Your task to perform on an android device: turn on priority inbox in the gmail app Image 0: 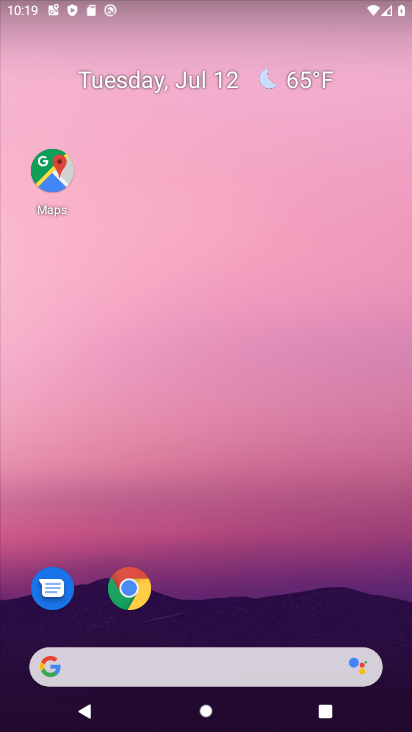
Step 0: drag from (20, 719) to (170, 35)
Your task to perform on an android device: turn on priority inbox in the gmail app Image 1: 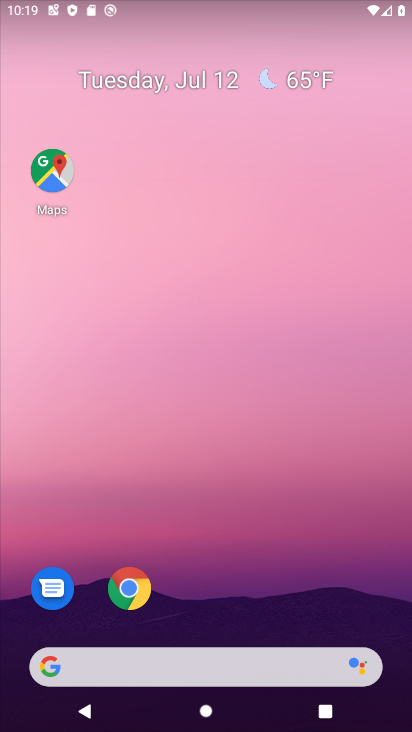
Step 1: drag from (47, 708) to (105, 72)
Your task to perform on an android device: turn on priority inbox in the gmail app Image 2: 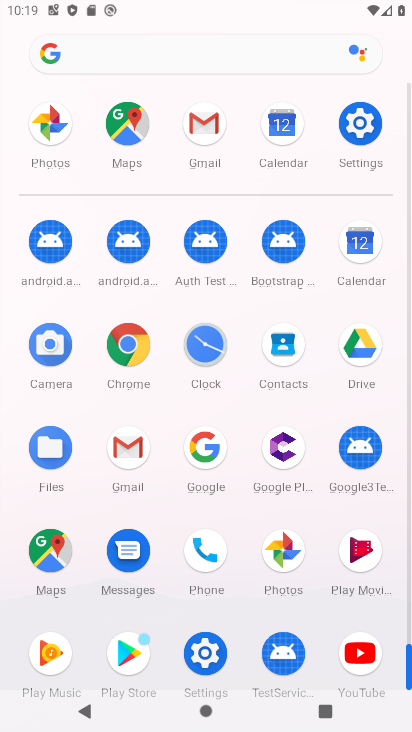
Step 2: click (131, 461)
Your task to perform on an android device: turn on priority inbox in the gmail app Image 3: 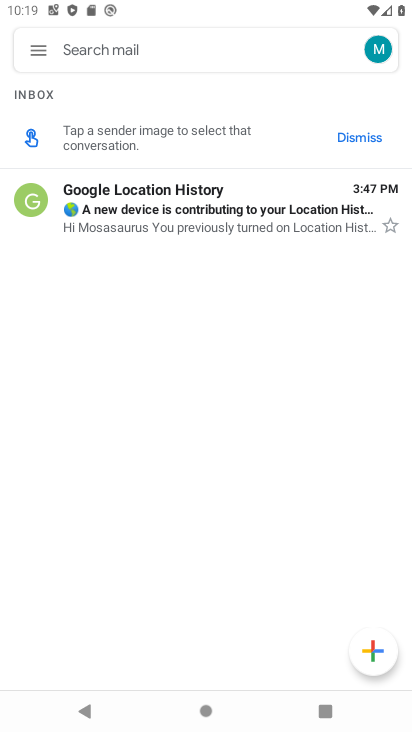
Step 3: click (32, 49)
Your task to perform on an android device: turn on priority inbox in the gmail app Image 4: 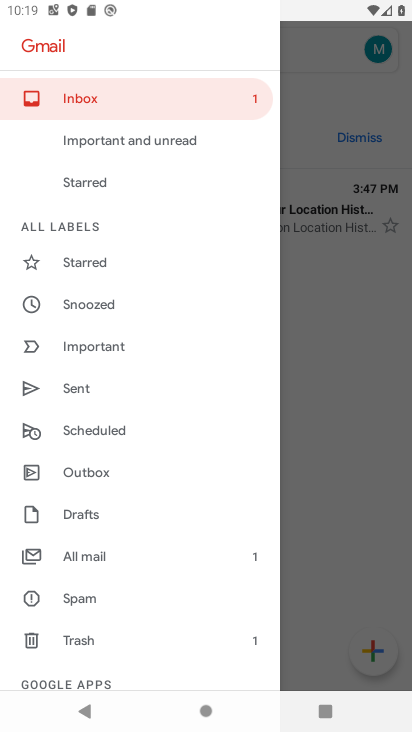
Step 4: drag from (157, 454) to (134, 3)
Your task to perform on an android device: turn on priority inbox in the gmail app Image 5: 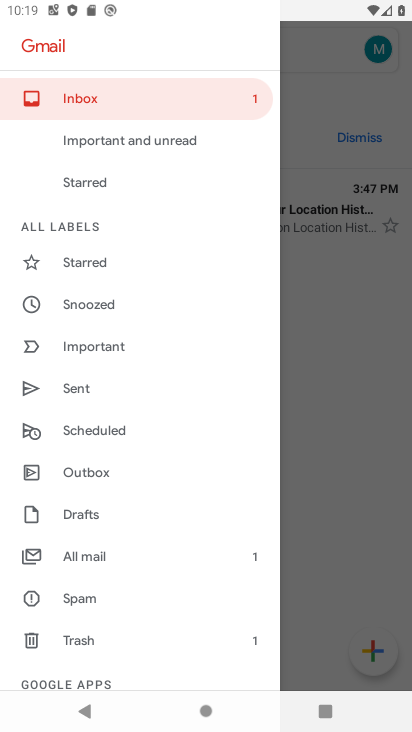
Step 5: drag from (147, 676) to (218, 246)
Your task to perform on an android device: turn on priority inbox in the gmail app Image 6: 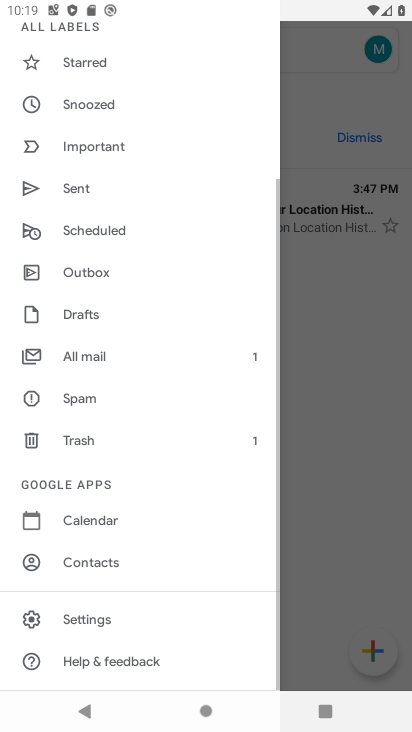
Step 6: click (86, 596)
Your task to perform on an android device: turn on priority inbox in the gmail app Image 7: 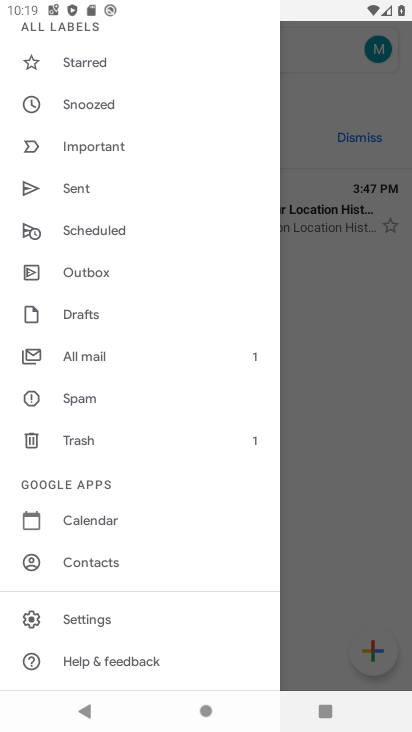
Step 7: click (89, 616)
Your task to perform on an android device: turn on priority inbox in the gmail app Image 8: 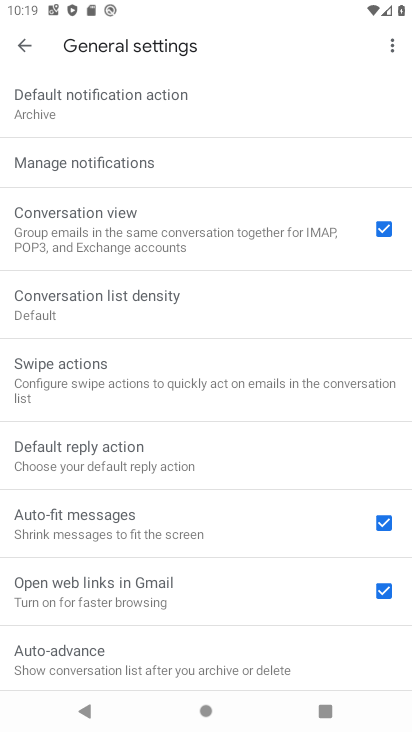
Step 8: drag from (157, 586) to (156, 80)
Your task to perform on an android device: turn on priority inbox in the gmail app Image 9: 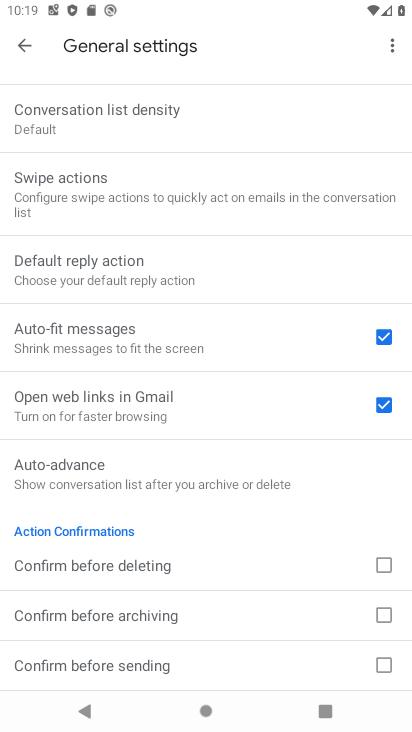
Step 9: click (17, 44)
Your task to perform on an android device: turn on priority inbox in the gmail app Image 10: 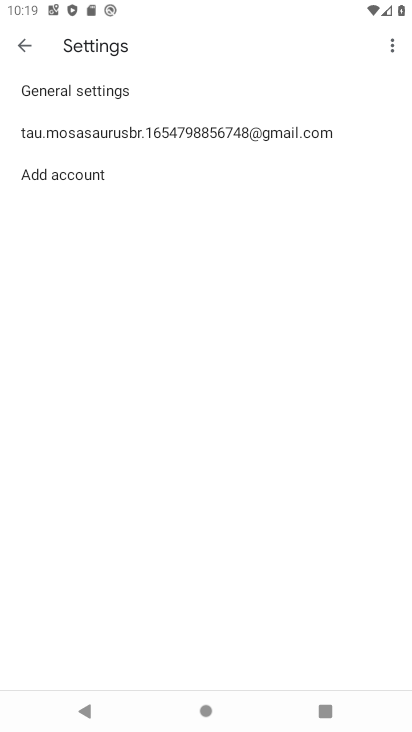
Step 10: click (48, 132)
Your task to perform on an android device: turn on priority inbox in the gmail app Image 11: 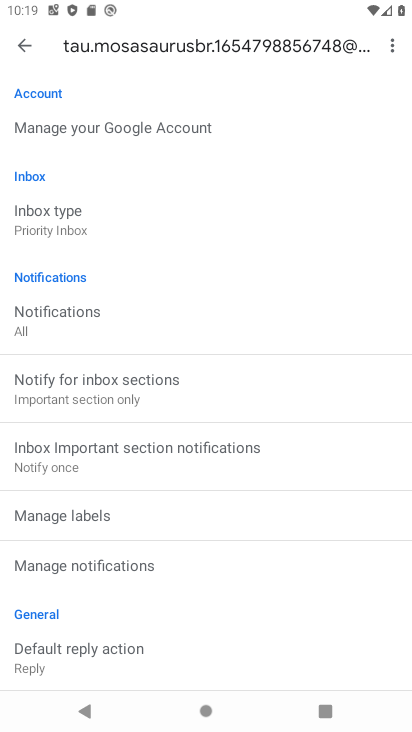
Step 11: drag from (224, 636) to (241, 190)
Your task to perform on an android device: turn on priority inbox in the gmail app Image 12: 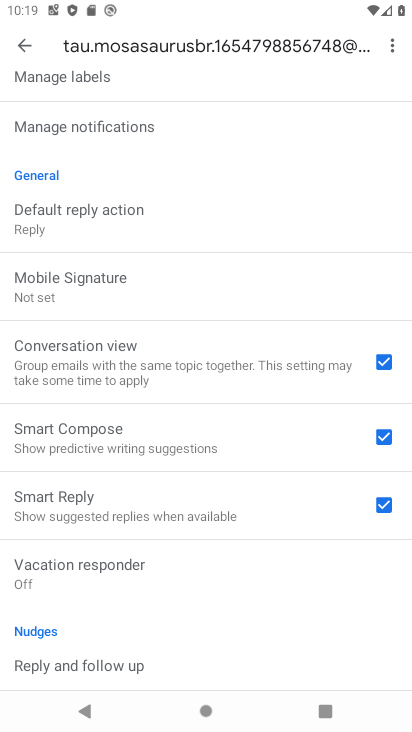
Step 12: drag from (218, 56) to (221, 677)
Your task to perform on an android device: turn on priority inbox in the gmail app Image 13: 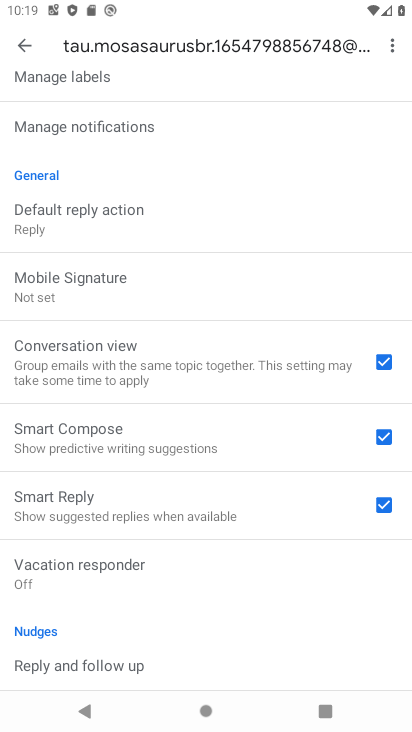
Step 13: click (228, 84)
Your task to perform on an android device: turn on priority inbox in the gmail app Image 14: 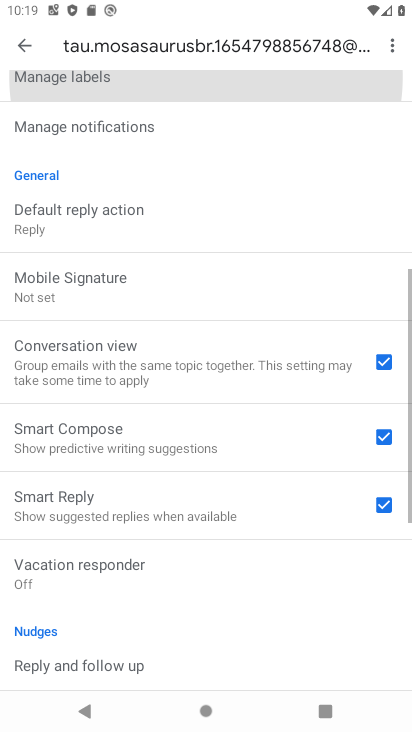
Step 14: drag from (228, 85) to (241, 515)
Your task to perform on an android device: turn on priority inbox in the gmail app Image 15: 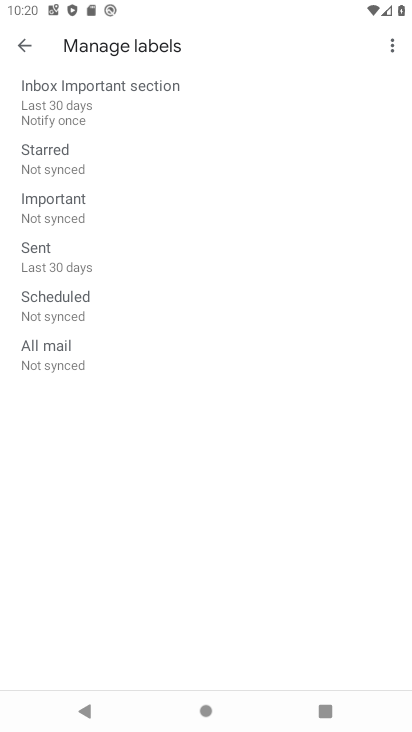
Step 15: click (17, 44)
Your task to perform on an android device: turn on priority inbox in the gmail app Image 16: 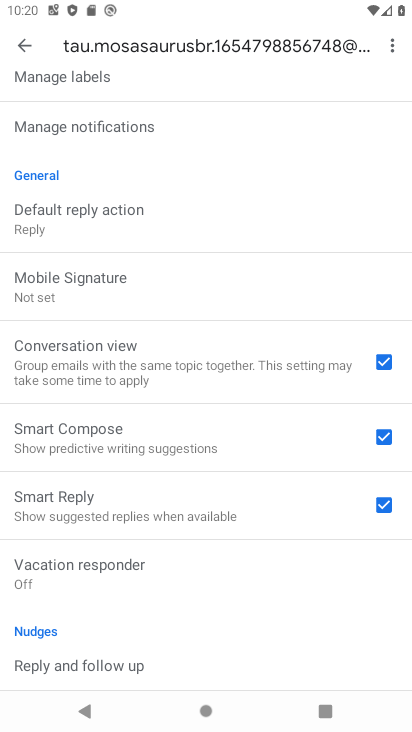
Step 16: drag from (187, 81) to (234, 571)
Your task to perform on an android device: turn on priority inbox in the gmail app Image 17: 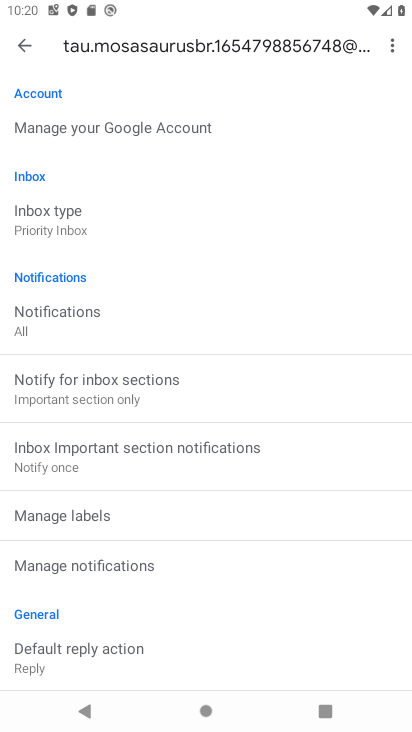
Step 17: click (53, 212)
Your task to perform on an android device: turn on priority inbox in the gmail app Image 18: 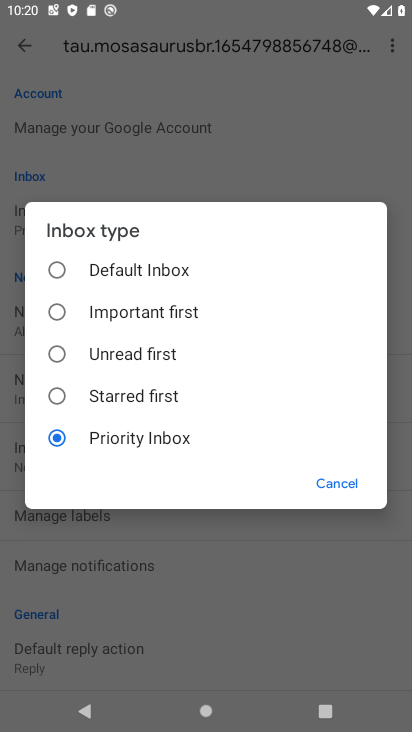
Step 18: task complete